Your task to perform on an android device: Open the calendar and show me this week's events? Image 0: 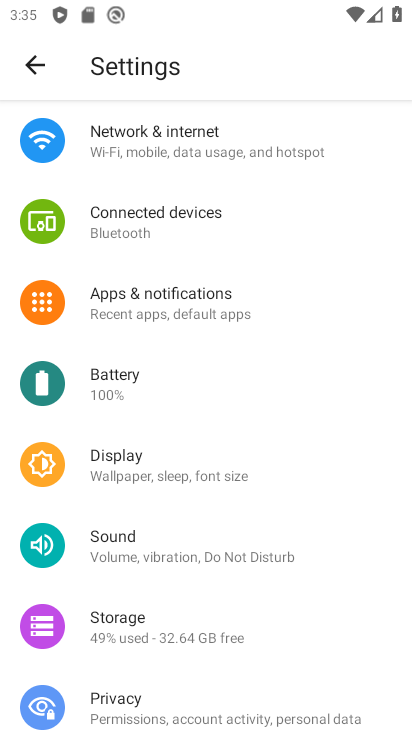
Step 0: press home button
Your task to perform on an android device: Open the calendar and show me this week's events? Image 1: 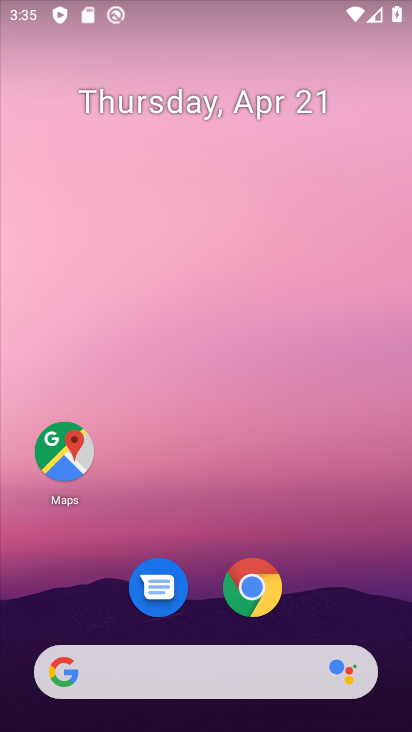
Step 1: drag from (362, 625) to (342, 14)
Your task to perform on an android device: Open the calendar and show me this week's events? Image 2: 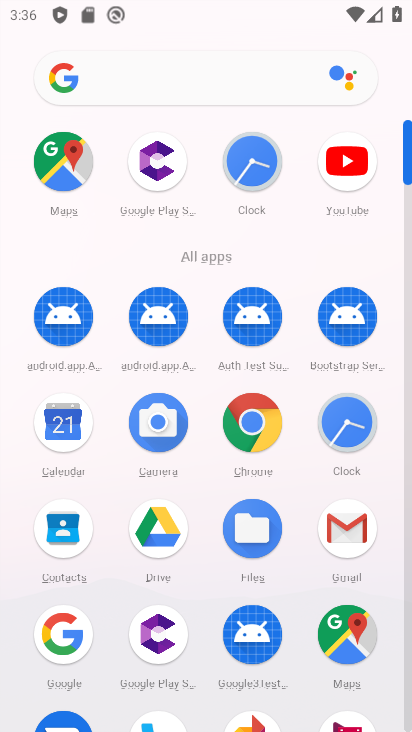
Step 2: click (59, 421)
Your task to perform on an android device: Open the calendar and show me this week's events? Image 3: 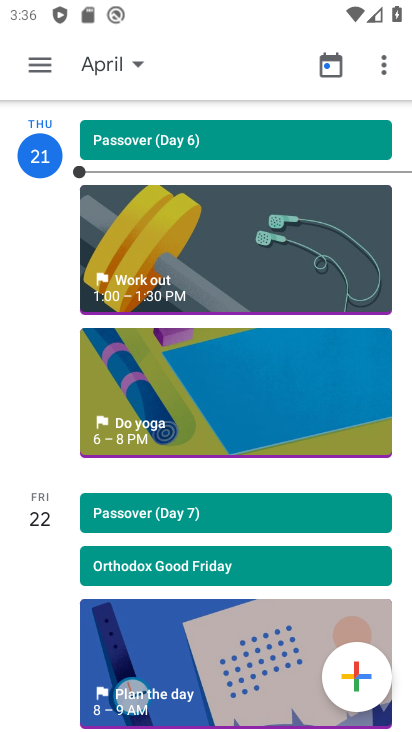
Step 3: click (30, 68)
Your task to perform on an android device: Open the calendar and show me this week's events? Image 4: 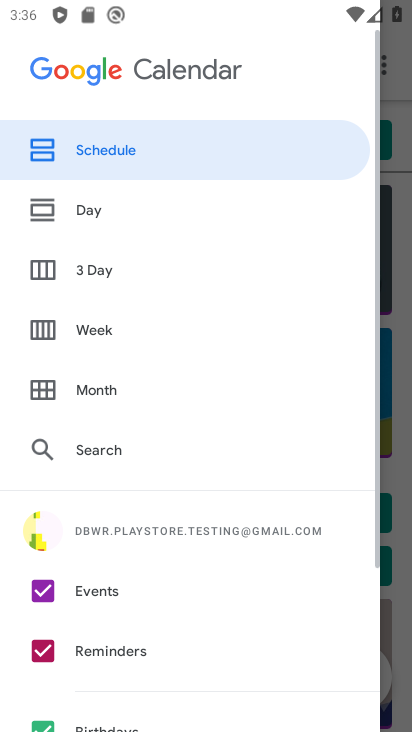
Step 4: click (83, 333)
Your task to perform on an android device: Open the calendar and show me this week's events? Image 5: 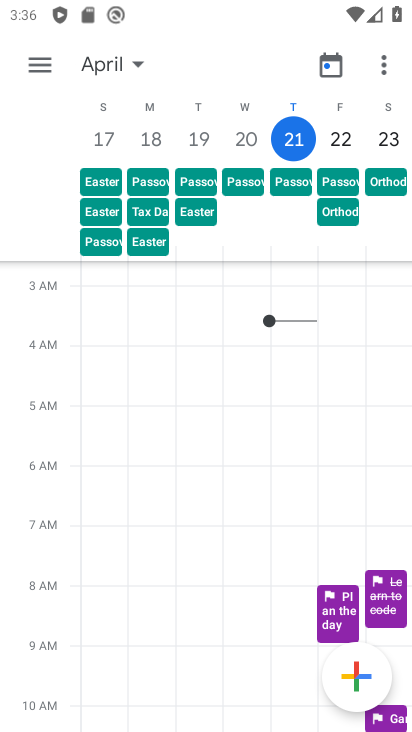
Step 5: drag from (313, 513) to (295, 325)
Your task to perform on an android device: Open the calendar and show me this week's events? Image 6: 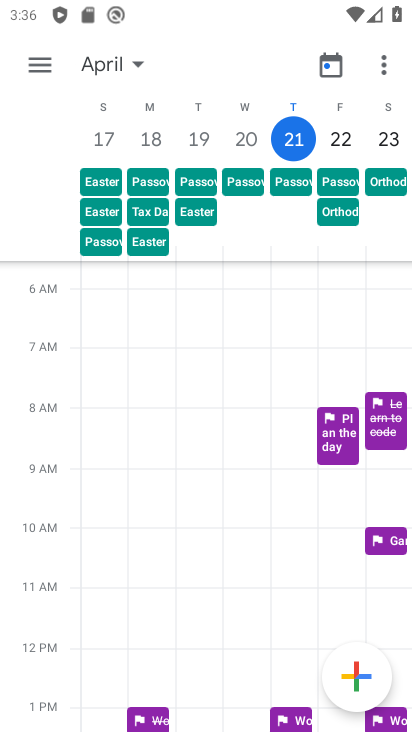
Step 6: drag from (336, 478) to (205, 240)
Your task to perform on an android device: Open the calendar and show me this week's events? Image 7: 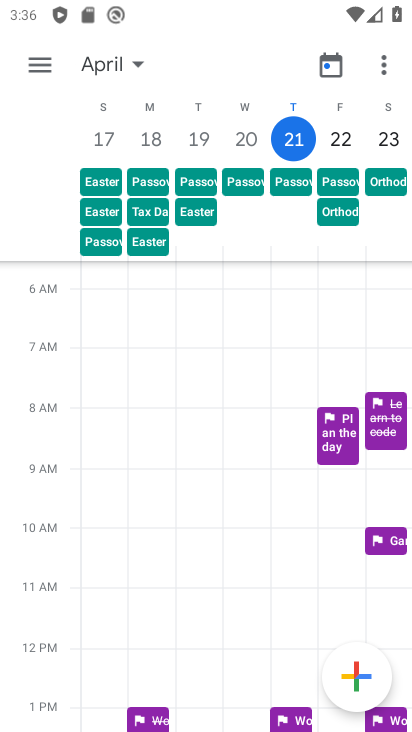
Step 7: drag from (236, 533) to (269, 198)
Your task to perform on an android device: Open the calendar and show me this week's events? Image 8: 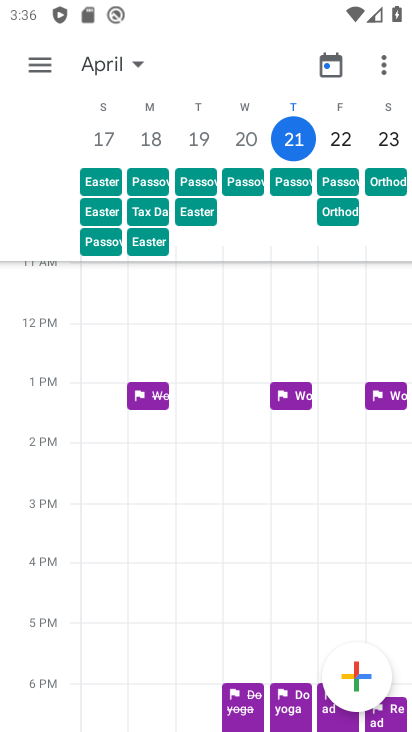
Step 8: drag from (259, 576) to (276, 299)
Your task to perform on an android device: Open the calendar and show me this week's events? Image 9: 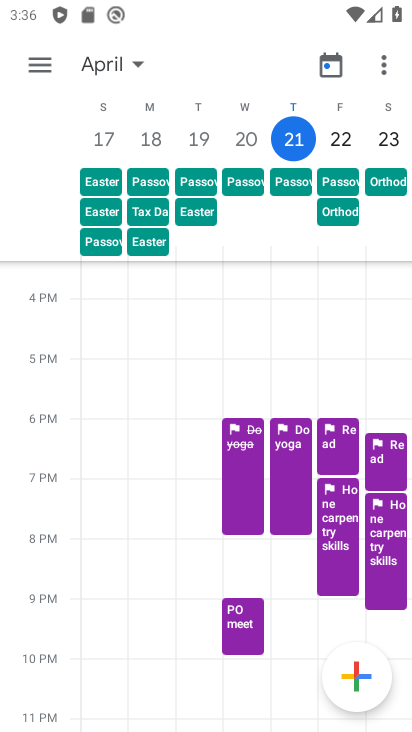
Step 9: click (40, 64)
Your task to perform on an android device: Open the calendar and show me this week's events? Image 10: 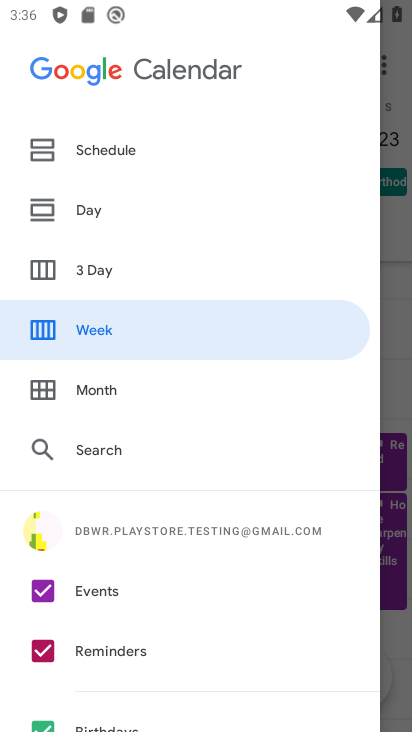
Step 10: click (44, 651)
Your task to perform on an android device: Open the calendar and show me this week's events? Image 11: 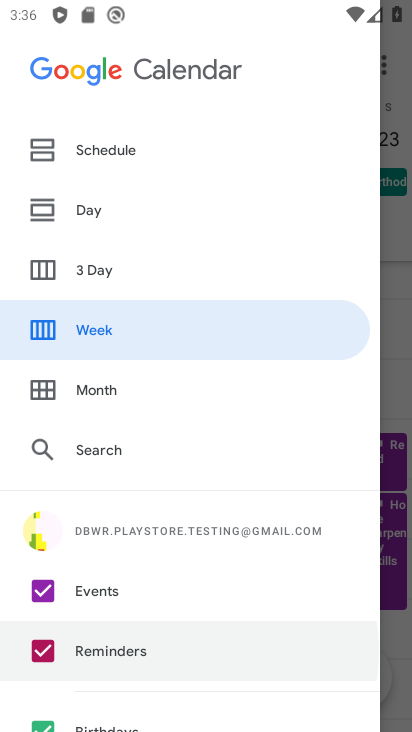
Step 11: drag from (158, 593) to (168, 330)
Your task to perform on an android device: Open the calendar and show me this week's events? Image 12: 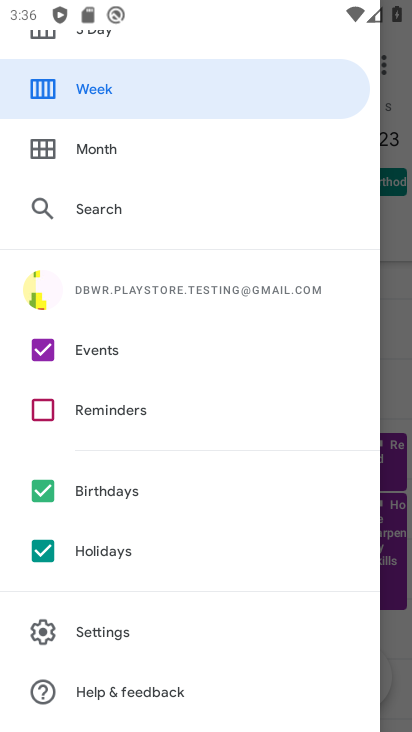
Step 12: click (49, 481)
Your task to perform on an android device: Open the calendar and show me this week's events? Image 13: 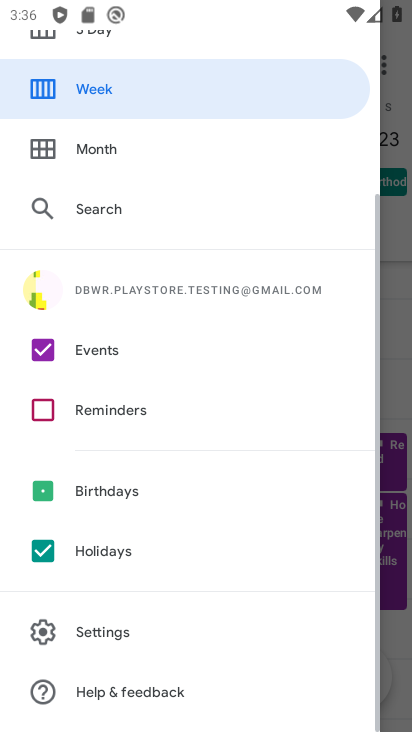
Step 13: click (32, 556)
Your task to perform on an android device: Open the calendar and show me this week's events? Image 14: 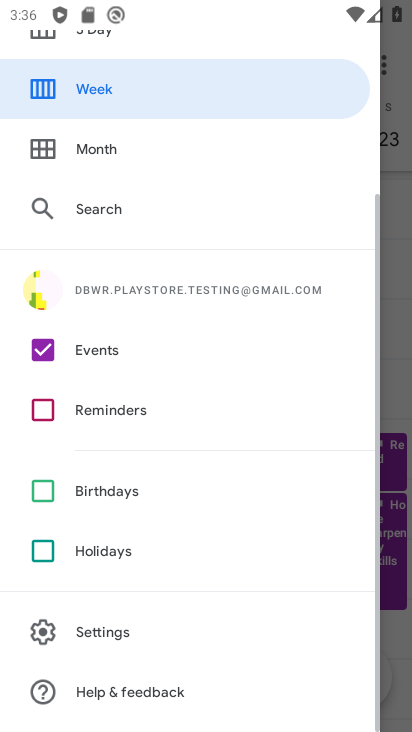
Step 14: drag from (155, 366) to (144, 665)
Your task to perform on an android device: Open the calendar and show me this week's events? Image 15: 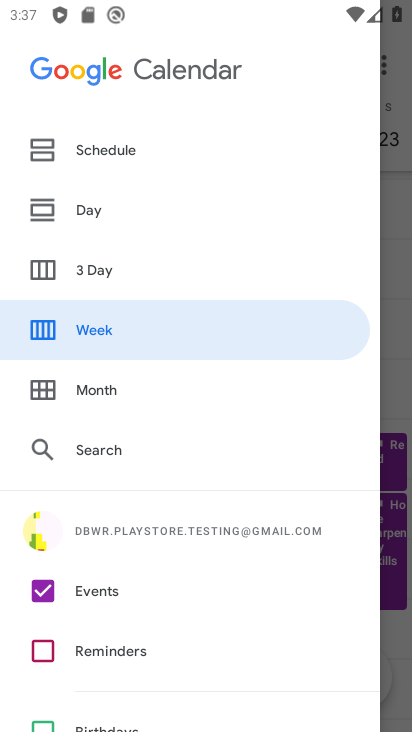
Step 15: click (409, 411)
Your task to perform on an android device: Open the calendar and show me this week's events? Image 16: 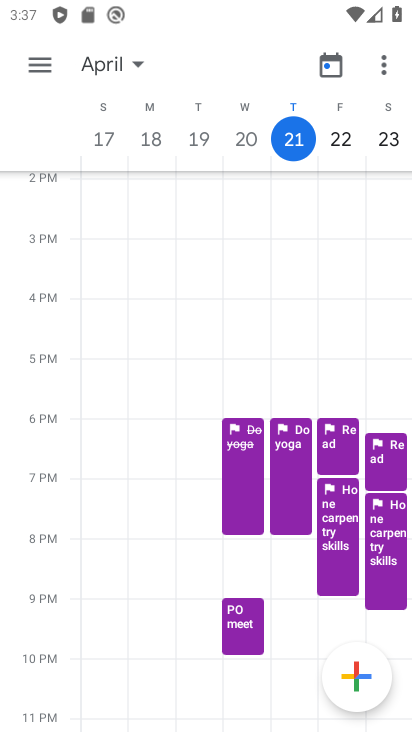
Step 16: task complete